Your task to perform on an android device: allow notifications from all sites in the chrome app Image 0: 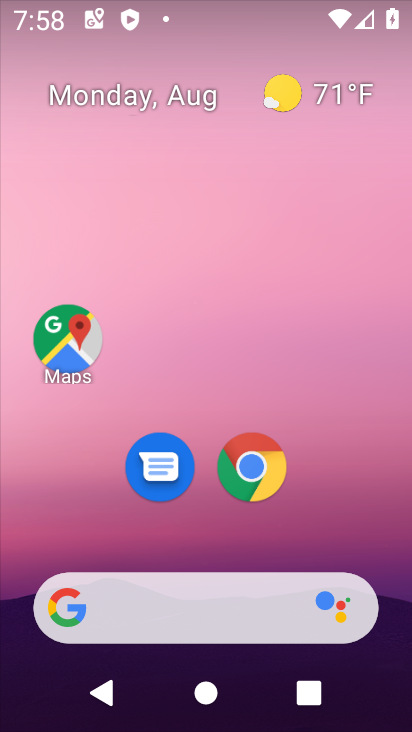
Step 0: press home button
Your task to perform on an android device: allow notifications from all sites in the chrome app Image 1: 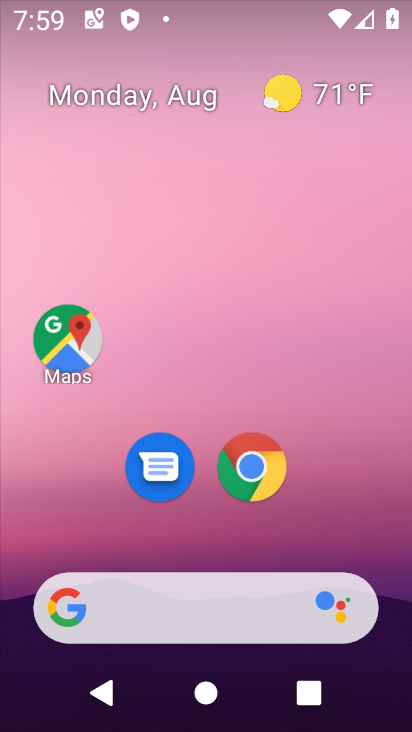
Step 1: drag from (372, 529) to (379, 133)
Your task to perform on an android device: allow notifications from all sites in the chrome app Image 2: 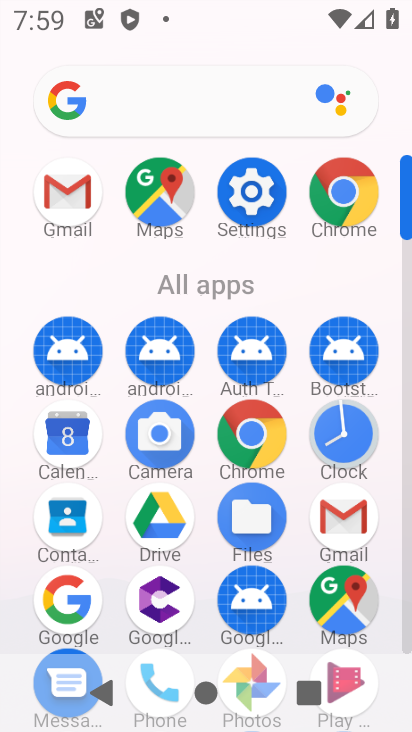
Step 2: click (347, 188)
Your task to perform on an android device: allow notifications from all sites in the chrome app Image 3: 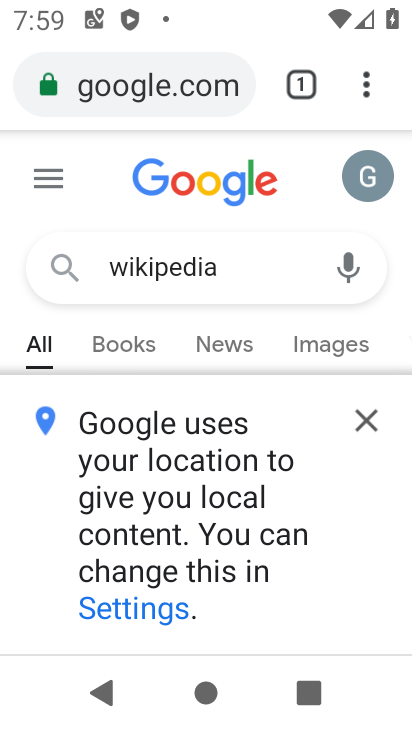
Step 3: click (364, 87)
Your task to perform on an android device: allow notifications from all sites in the chrome app Image 4: 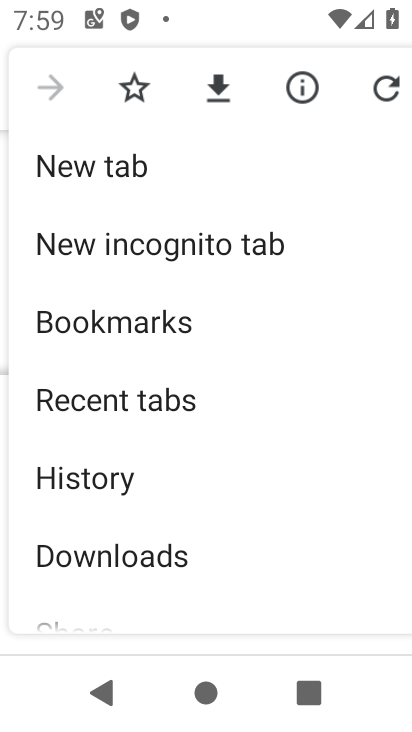
Step 4: drag from (297, 433) to (311, 302)
Your task to perform on an android device: allow notifications from all sites in the chrome app Image 5: 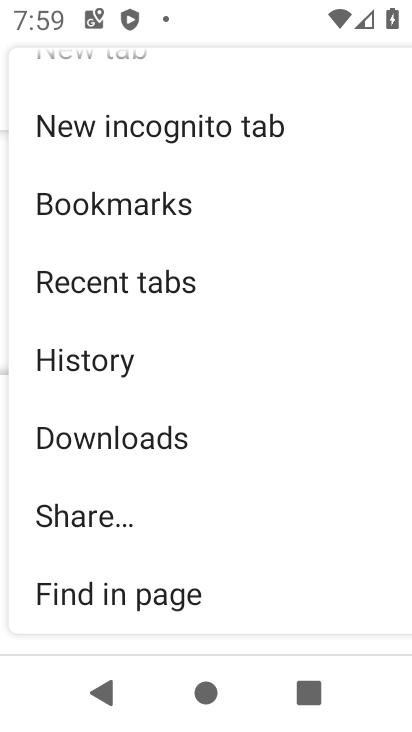
Step 5: drag from (298, 461) to (316, 343)
Your task to perform on an android device: allow notifications from all sites in the chrome app Image 6: 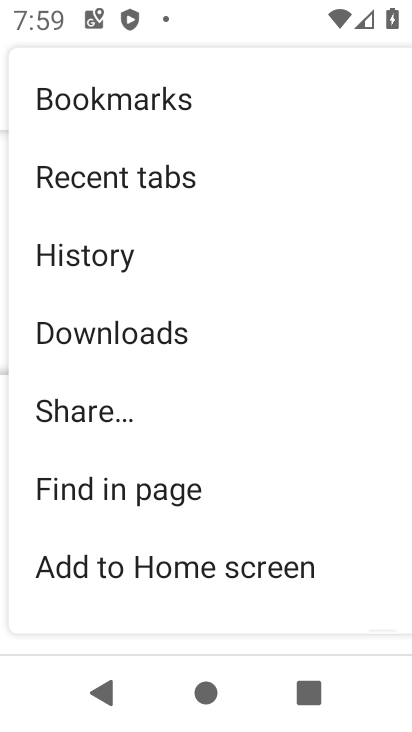
Step 6: drag from (337, 488) to (352, 358)
Your task to perform on an android device: allow notifications from all sites in the chrome app Image 7: 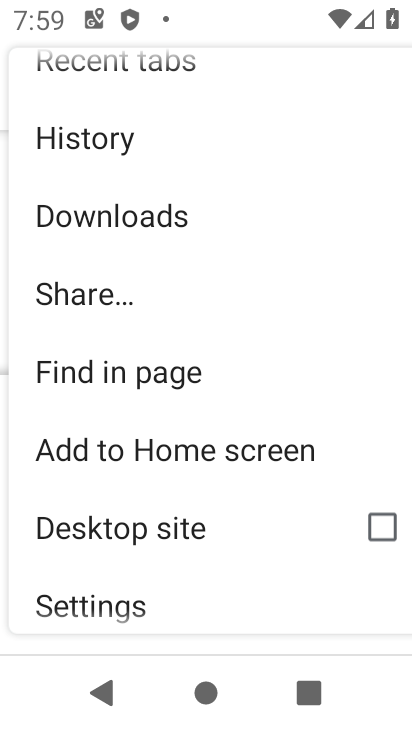
Step 7: click (214, 612)
Your task to perform on an android device: allow notifications from all sites in the chrome app Image 8: 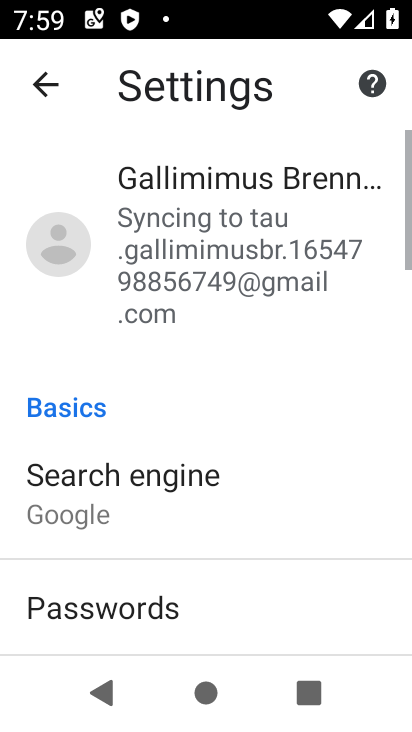
Step 8: drag from (311, 555) to (319, 425)
Your task to perform on an android device: allow notifications from all sites in the chrome app Image 9: 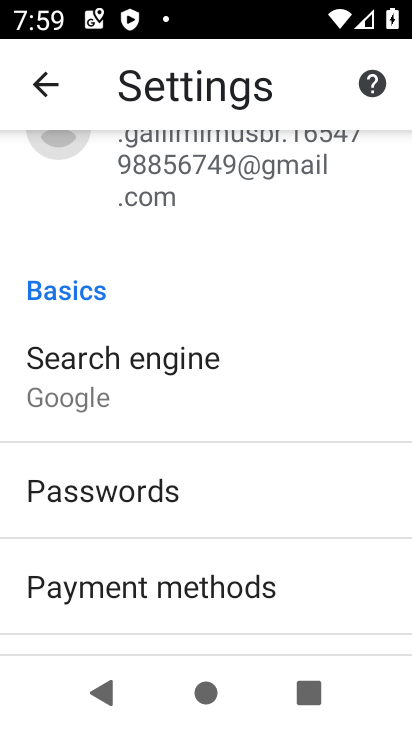
Step 9: drag from (319, 547) to (325, 453)
Your task to perform on an android device: allow notifications from all sites in the chrome app Image 10: 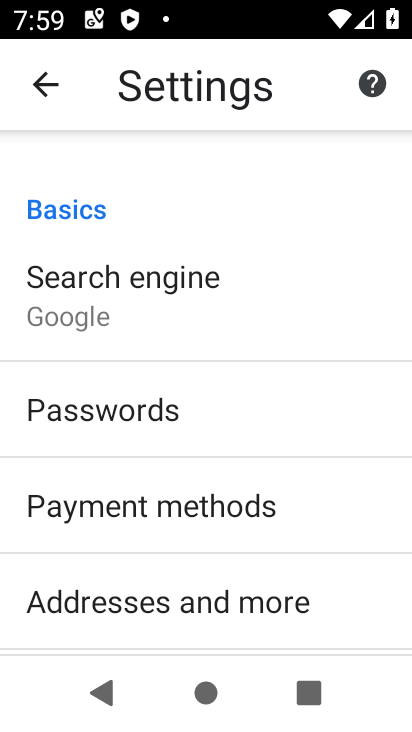
Step 10: drag from (330, 556) to (333, 459)
Your task to perform on an android device: allow notifications from all sites in the chrome app Image 11: 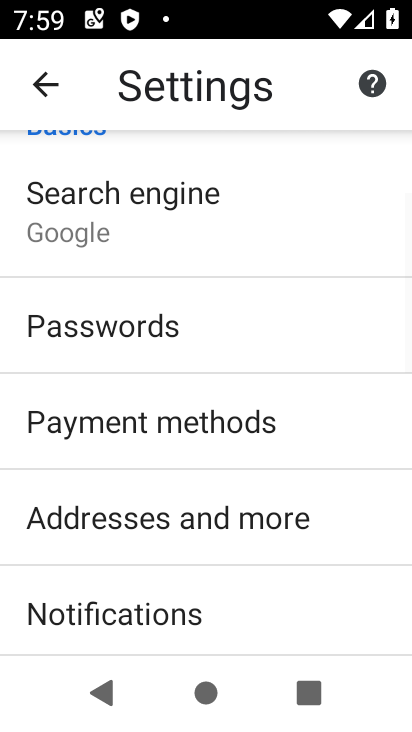
Step 11: drag from (334, 583) to (342, 470)
Your task to perform on an android device: allow notifications from all sites in the chrome app Image 12: 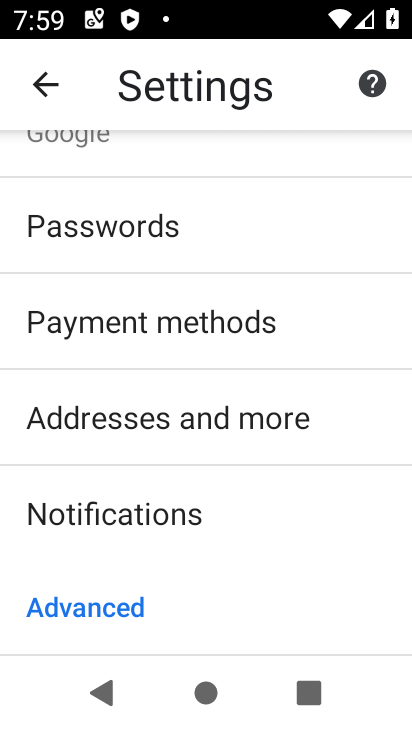
Step 12: drag from (334, 568) to (337, 459)
Your task to perform on an android device: allow notifications from all sites in the chrome app Image 13: 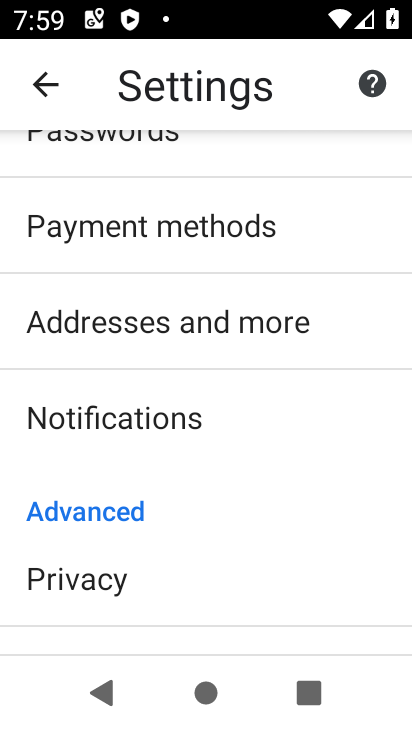
Step 13: drag from (334, 572) to (339, 470)
Your task to perform on an android device: allow notifications from all sites in the chrome app Image 14: 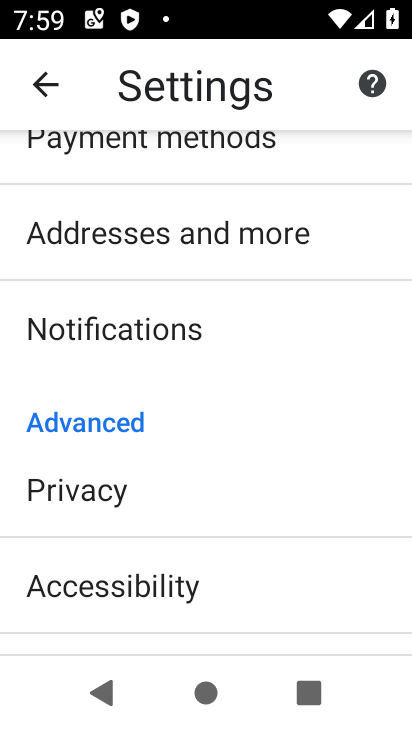
Step 14: drag from (336, 565) to (337, 463)
Your task to perform on an android device: allow notifications from all sites in the chrome app Image 15: 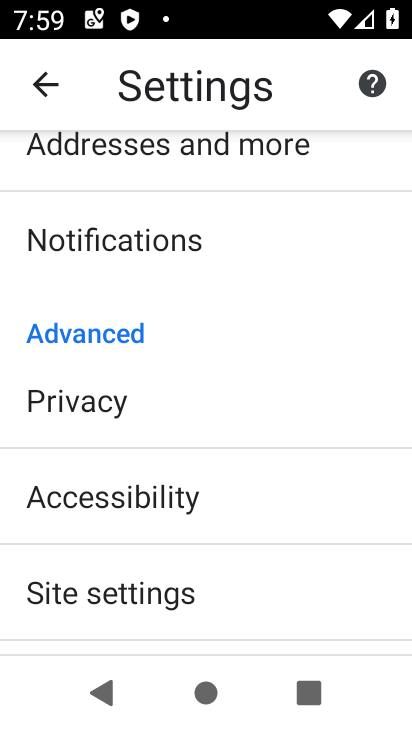
Step 15: drag from (340, 560) to (339, 447)
Your task to perform on an android device: allow notifications from all sites in the chrome app Image 16: 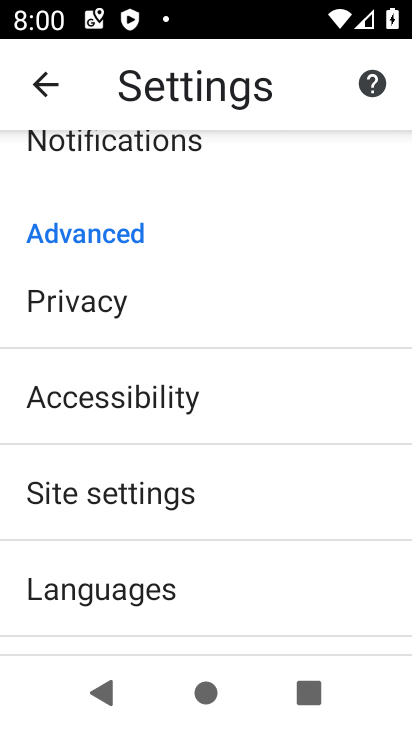
Step 16: drag from (321, 572) to (327, 438)
Your task to perform on an android device: allow notifications from all sites in the chrome app Image 17: 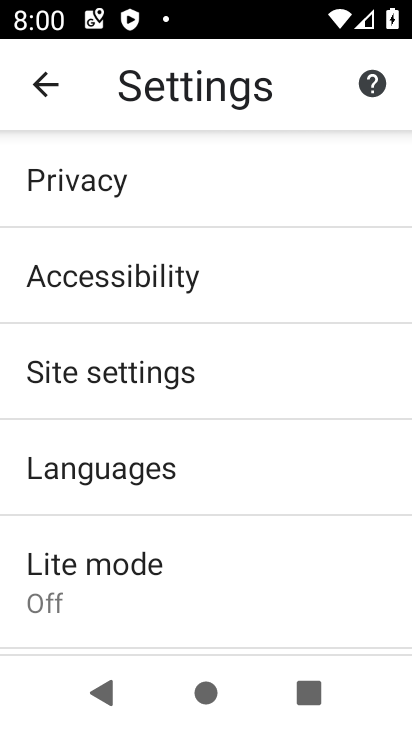
Step 17: drag from (324, 539) to (325, 439)
Your task to perform on an android device: allow notifications from all sites in the chrome app Image 18: 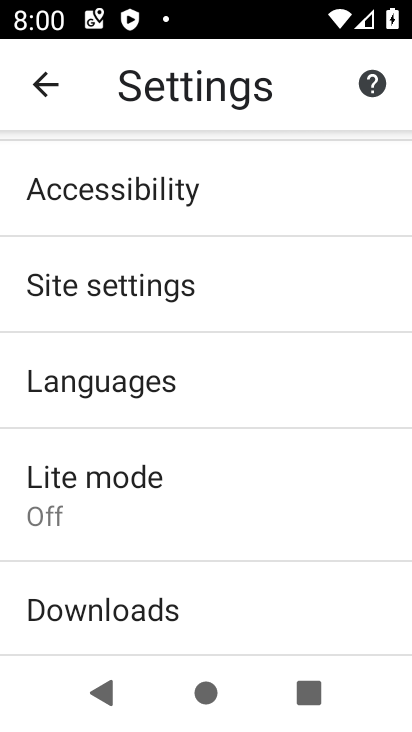
Step 18: click (234, 288)
Your task to perform on an android device: allow notifications from all sites in the chrome app Image 19: 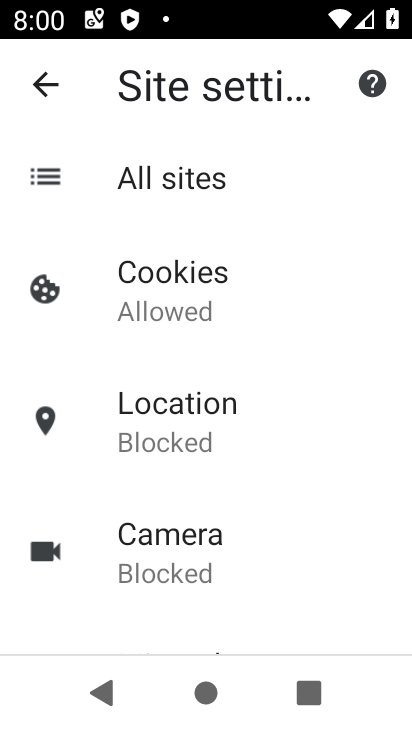
Step 19: click (209, 282)
Your task to perform on an android device: allow notifications from all sites in the chrome app Image 20: 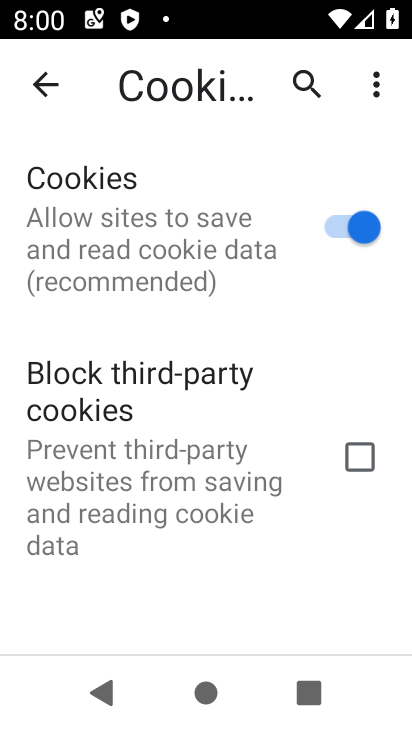
Step 20: task complete